Your task to perform on an android device: Search for the best rated headphones on Amazon. Image 0: 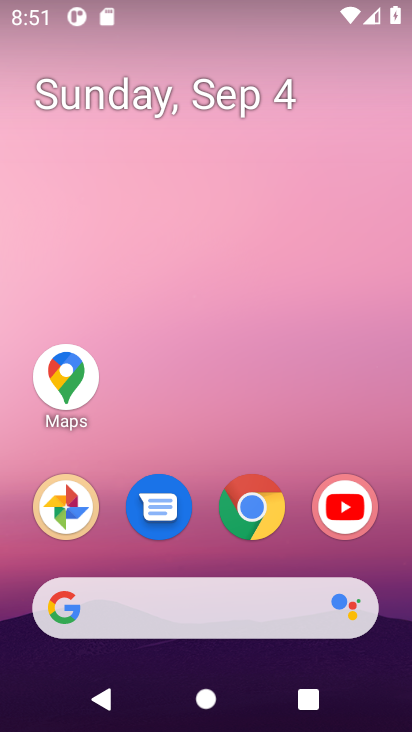
Step 0: click (251, 514)
Your task to perform on an android device: Search for the best rated headphones on Amazon. Image 1: 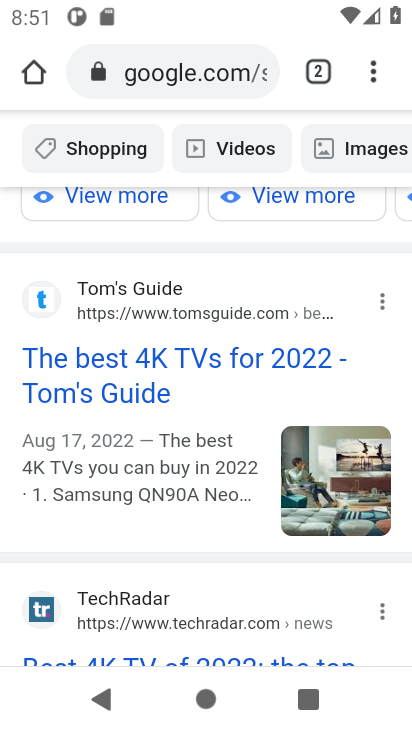
Step 1: click (160, 49)
Your task to perform on an android device: Search for the best rated headphones on Amazon. Image 2: 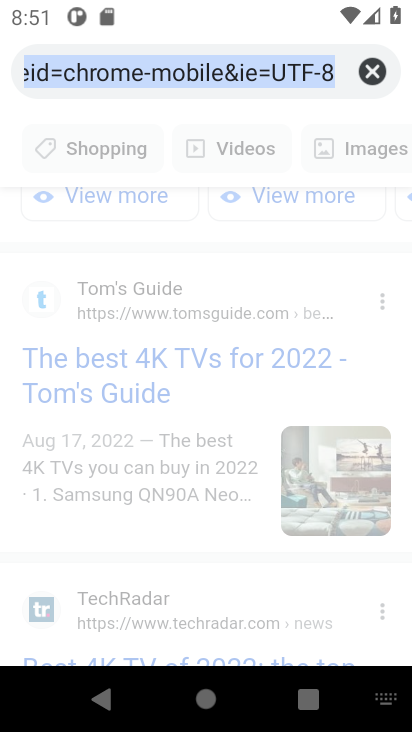
Step 2: click (373, 69)
Your task to perform on an android device: Search for the best rated headphones on Amazon. Image 3: 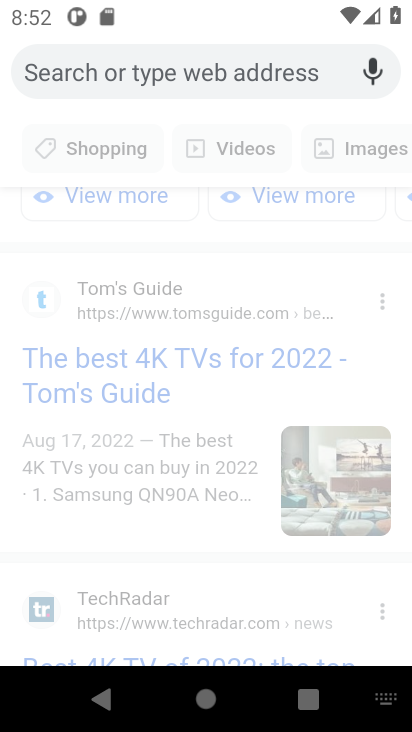
Step 3: type " Amazon"
Your task to perform on an android device: Search for the best rated headphones on Amazon. Image 4: 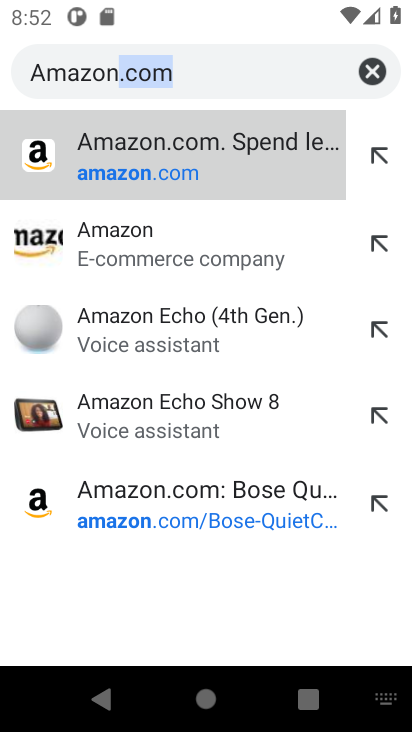
Step 4: click (104, 134)
Your task to perform on an android device: Search for the best rated headphones on Amazon. Image 5: 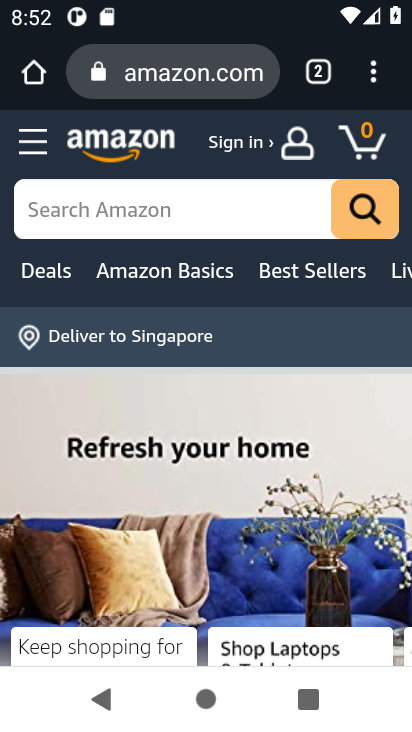
Step 5: click (121, 211)
Your task to perform on an android device: Search for the best rated headphones on Amazon. Image 6: 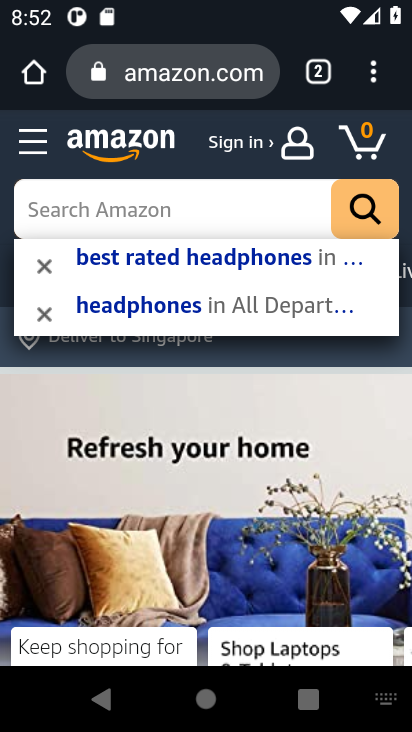
Step 6: type " headphones"
Your task to perform on an android device: Search for the best rated headphones on Amazon. Image 7: 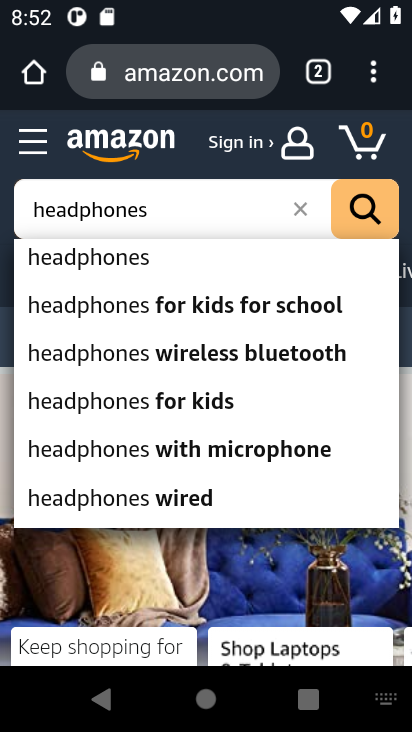
Step 7: click (99, 254)
Your task to perform on an android device: Search for the best rated headphones on Amazon. Image 8: 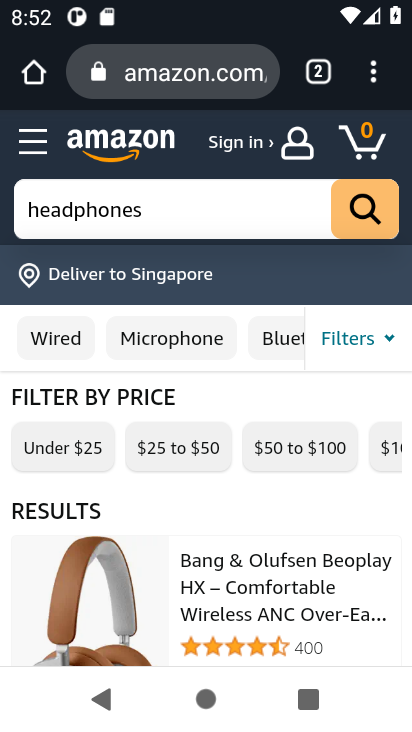
Step 8: task complete